Your task to perform on an android device: When is my next appointment? Image 0: 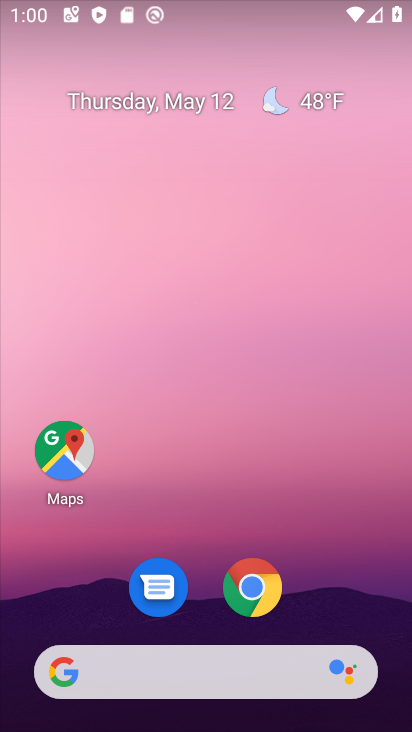
Step 0: drag from (234, 596) to (281, 293)
Your task to perform on an android device: When is my next appointment? Image 1: 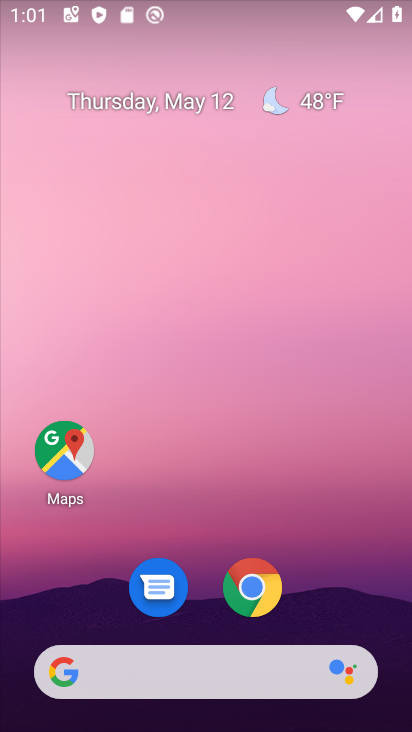
Step 1: drag from (238, 595) to (257, 254)
Your task to perform on an android device: When is my next appointment? Image 2: 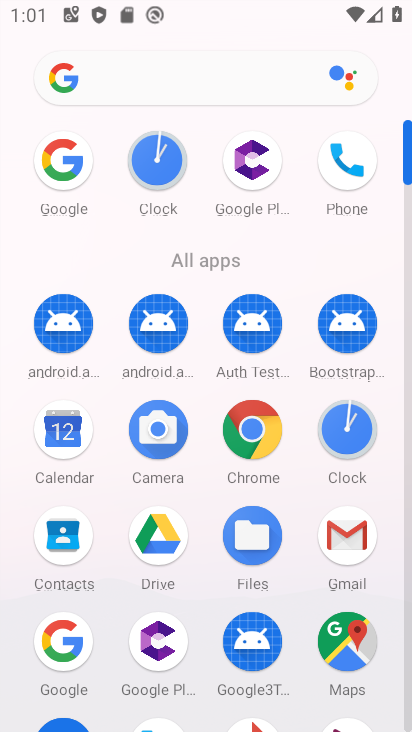
Step 2: drag from (277, 480) to (308, 263)
Your task to perform on an android device: When is my next appointment? Image 3: 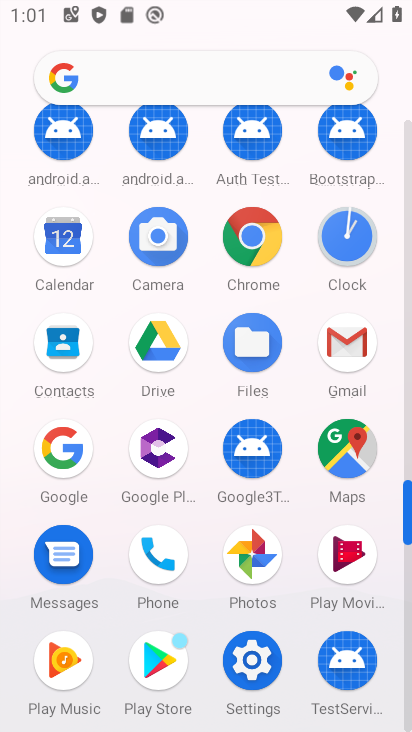
Step 3: drag from (255, 507) to (250, 303)
Your task to perform on an android device: When is my next appointment? Image 4: 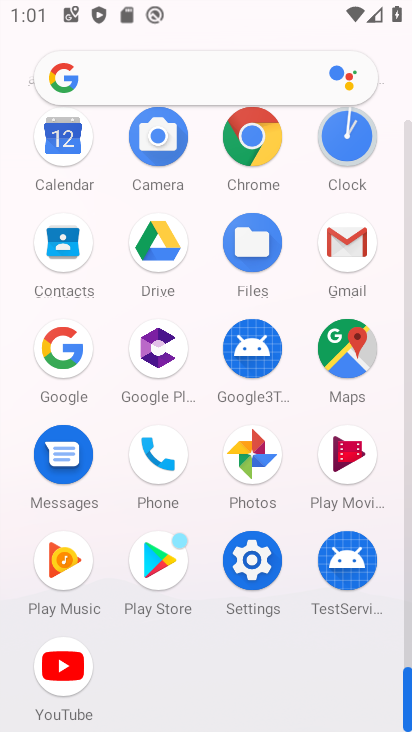
Step 4: drag from (247, 436) to (237, 662)
Your task to perform on an android device: When is my next appointment? Image 5: 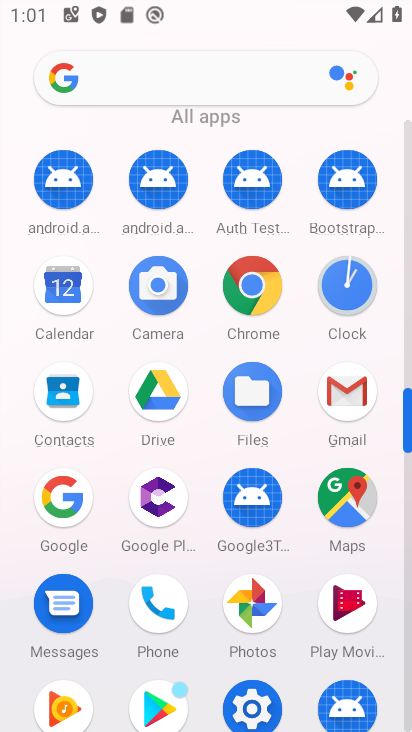
Step 5: click (69, 312)
Your task to perform on an android device: When is my next appointment? Image 6: 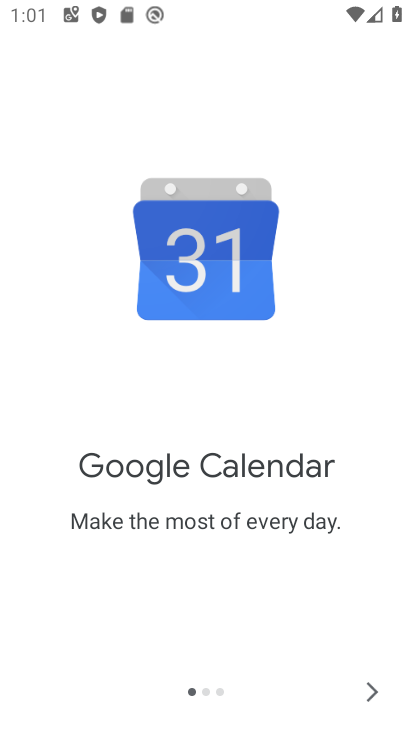
Step 6: click (370, 701)
Your task to perform on an android device: When is my next appointment? Image 7: 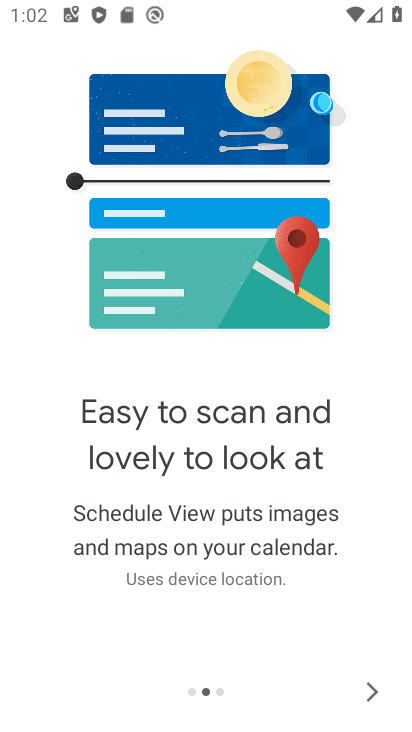
Step 7: click (365, 688)
Your task to perform on an android device: When is my next appointment? Image 8: 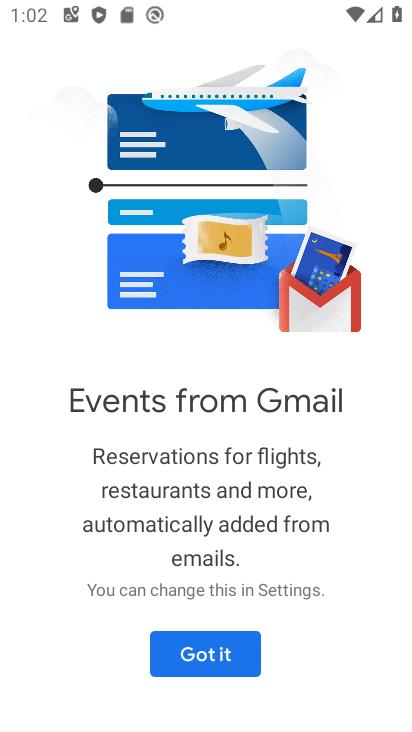
Step 8: click (221, 661)
Your task to perform on an android device: When is my next appointment? Image 9: 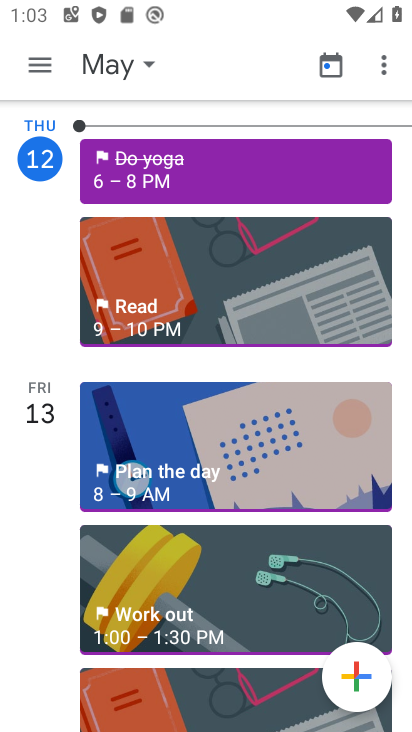
Step 9: click (51, 64)
Your task to perform on an android device: When is my next appointment? Image 10: 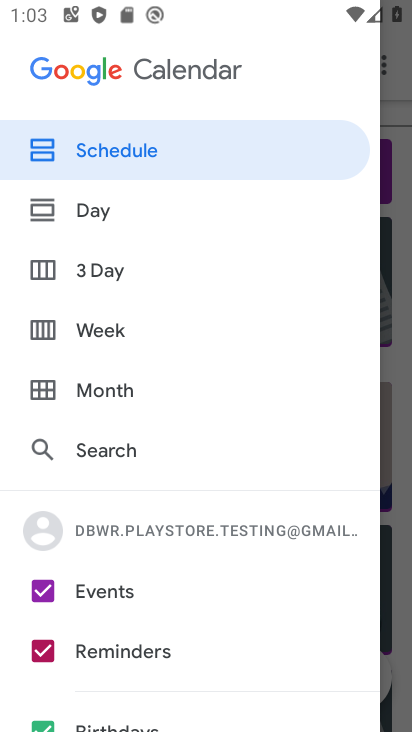
Step 10: drag from (134, 563) to (168, 284)
Your task to perform on an android device: When is my next appointment? Image 11: 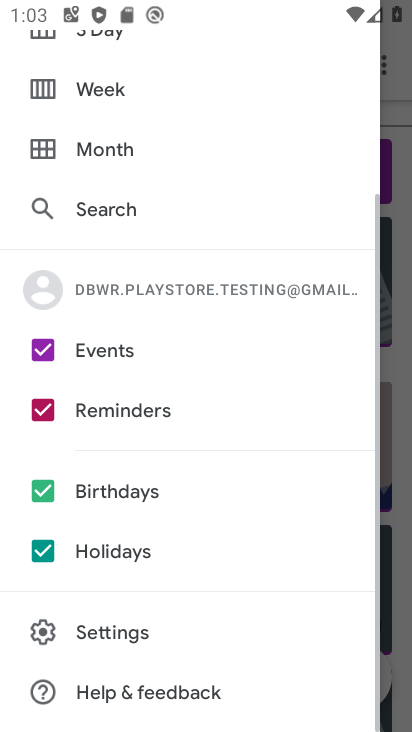
Step 11: click (52, 552)
Your task to perform on an android device: When is my next appointment? Image 12: 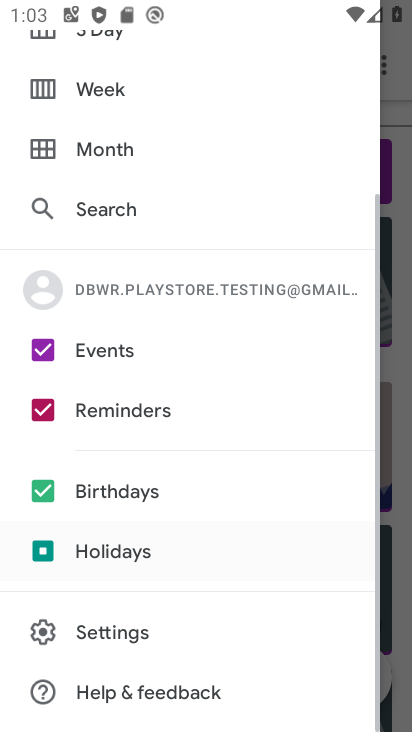
Step 12: click (51, 506)
Your task to perform on an android device: When is my next appointment? Image 13: 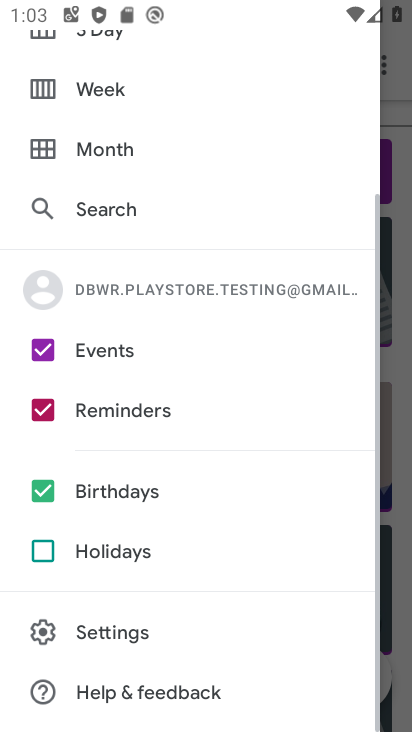
Step 13: click (48, 488)
Your task to perform on an android device: When is my next appointment? Image 14: 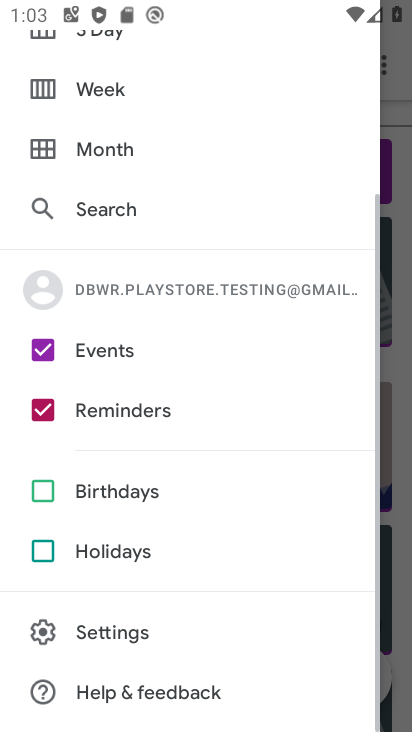
Step 14: click (399, 432)
Your task to perform on an android device: When is my next appointment? Image 15: 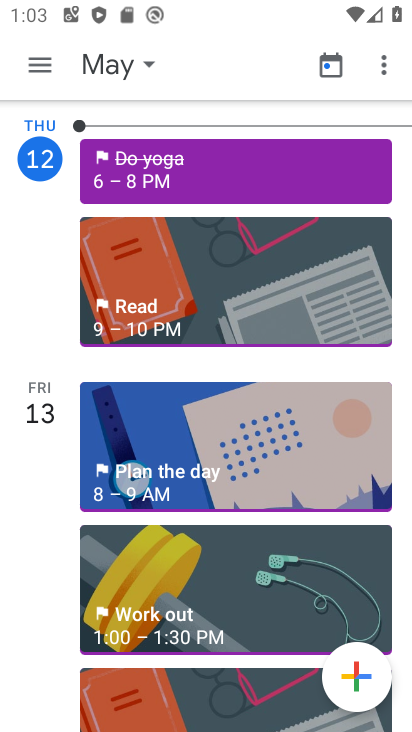
Step 15: task complete